Your task to perform on an android device: Open ESPN.com Image 0: 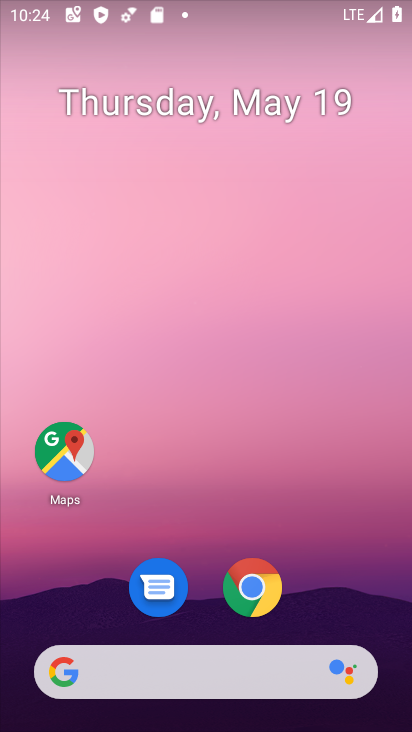
Step 0: click (134, 651)
Your task to perform on an android device: Open ESPN.com Image 1: 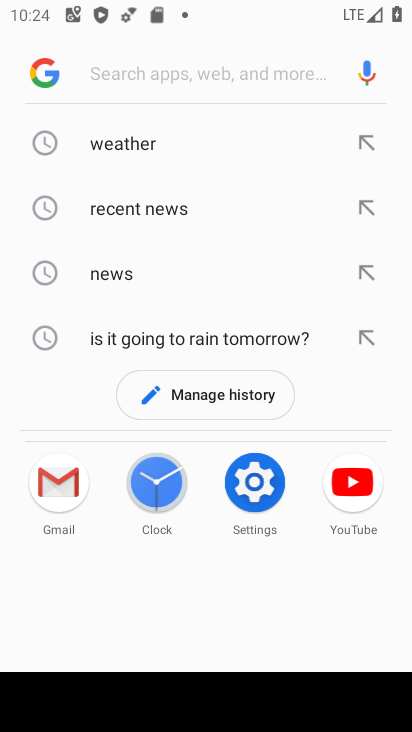
Step 1: type "espn.com"
Your task to perform on an android device: Open ESPN.com Image 2: 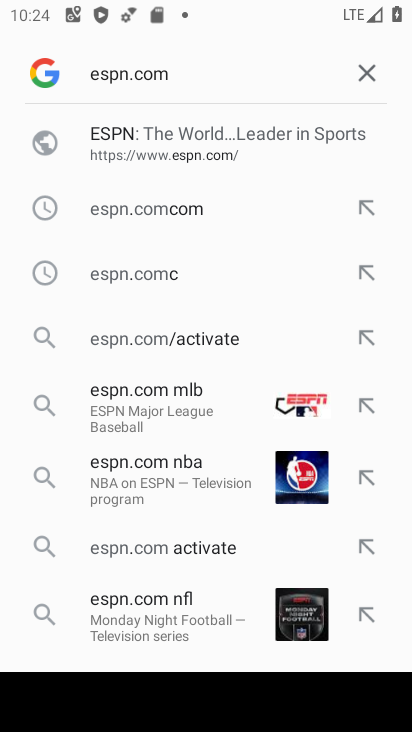
Step 2: click (230, 117)
Your task to perform on an android device: Open ESPN.com Image 3: 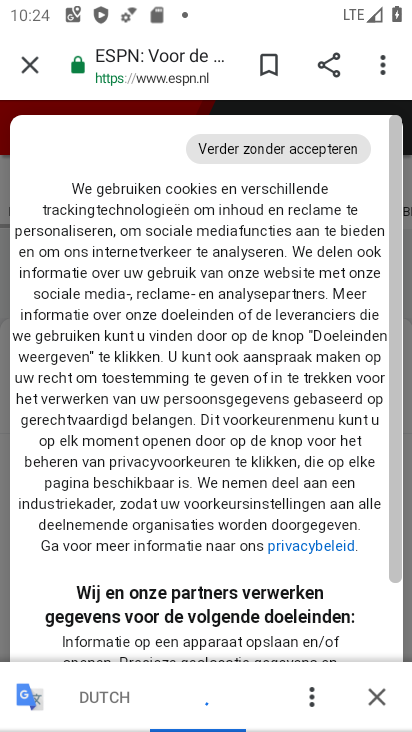
Step 3: task complete